Your task to perform on an android device: How much does a 2 bedroom apartment rent for in Boston? Image 0: 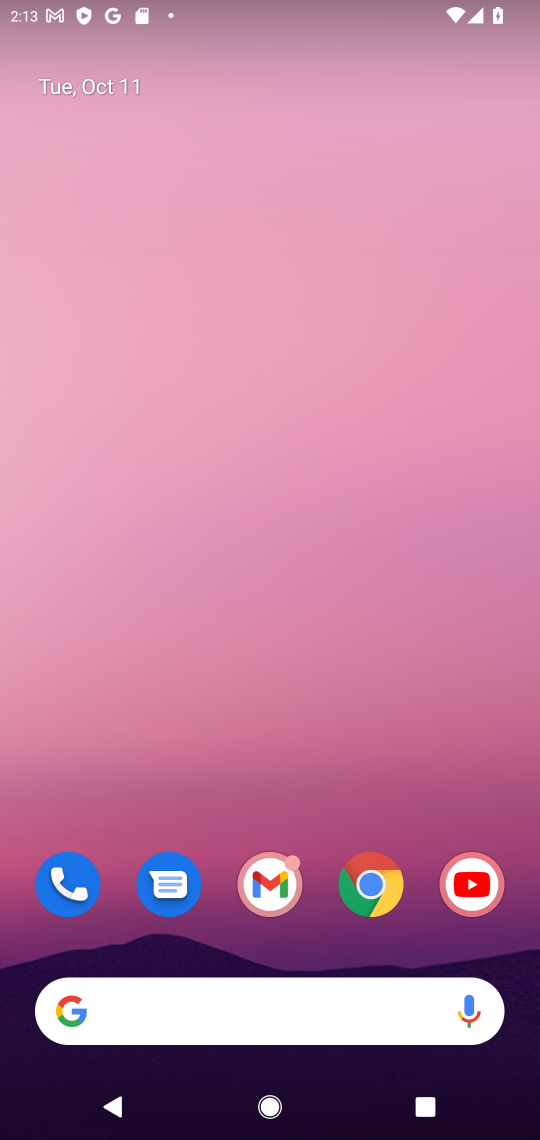
Step 0: click (375, 884)
Your task to perform on an android device: How much does a 2 bedroom apartment rent for in Boston? Image 1: 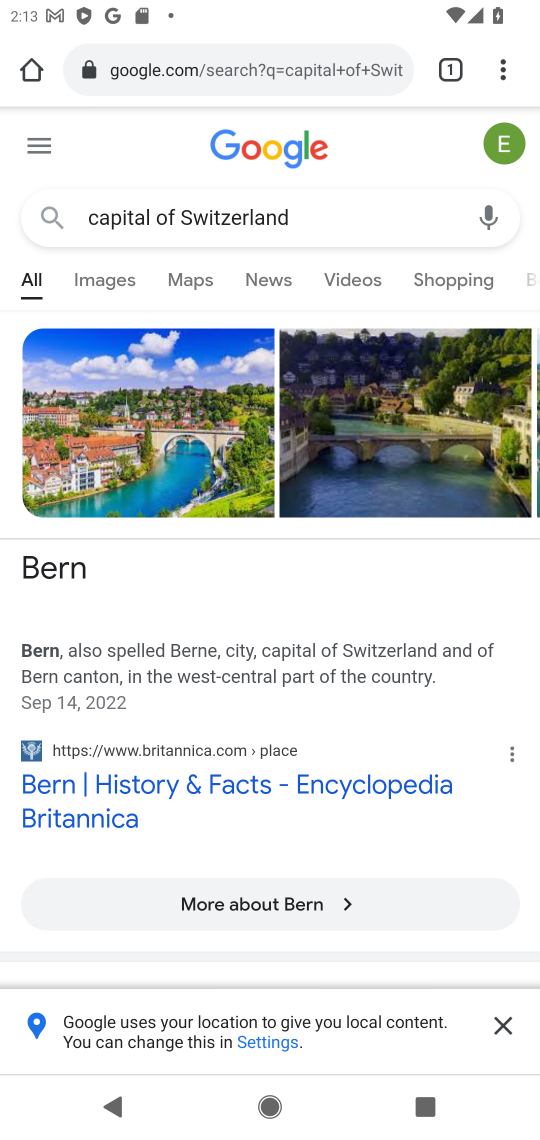
Step 1: click (365, 65)
Your task to perform on an android device: How much does a 2 bedroom apartment rent for in Boston? Image 2: 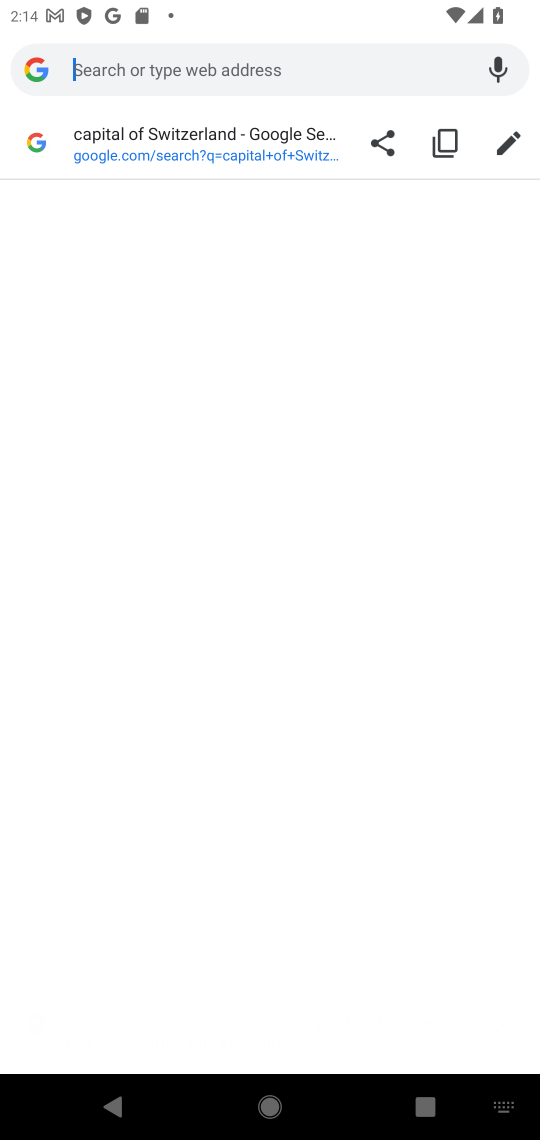
Step 2: type "How much does a 2 bedroom apartment rent for in Boston"
Your task to perform on an android device: How much does a 2 bedroom apartment rent for in Boston? Image 3: 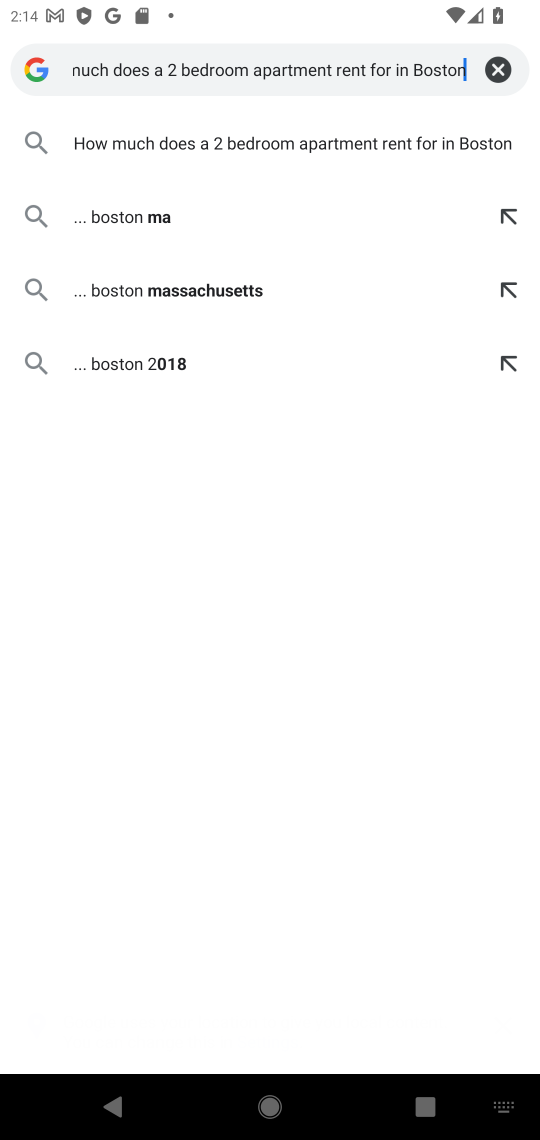
Step 3: click (315, 151)
Your task to perform on an android device: How much does a 2 bedroom apartment rent for in Boston? Image 4: 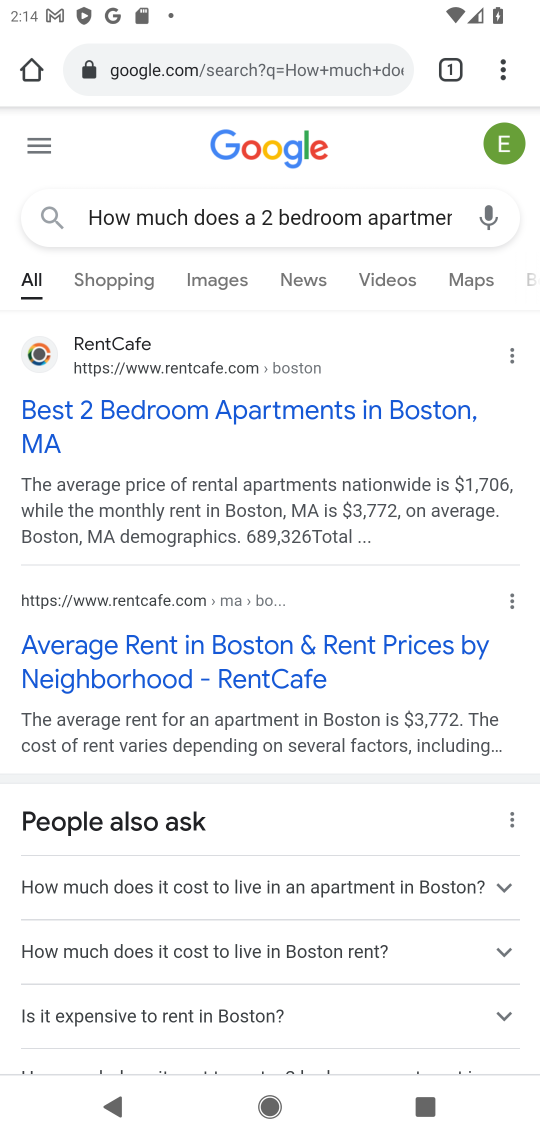
Step 4: click (234, 412)
Your task to perform on an android device: How much does a 2 bedroom apartment rent for in Boston? Image 5: 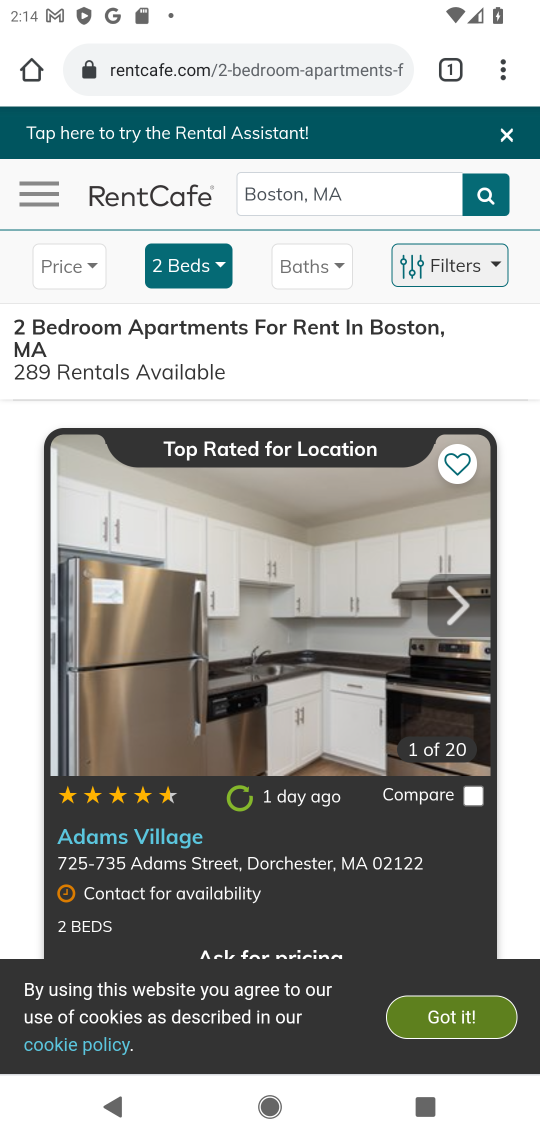
Step 5: task complete